Your task to perform on an android device: Open eBay Image 0: 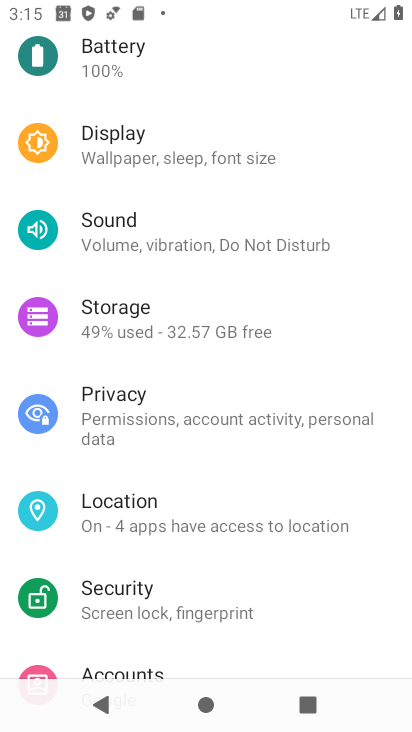
Step 0: press home button
Your task to perform on an android device: Open eBay Image 1: 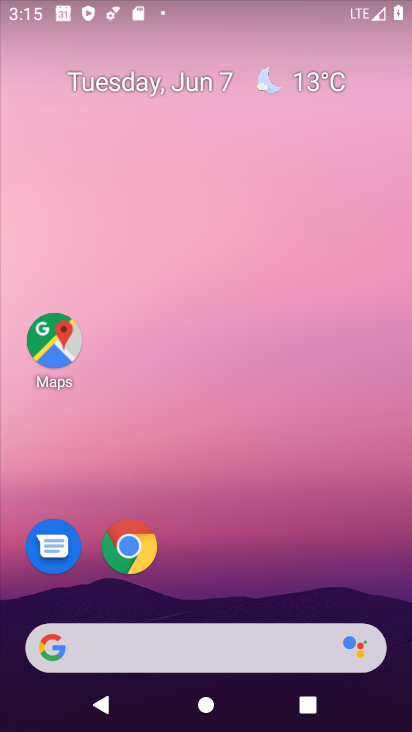
Step 1: drag from (237, 595) to (267, 58)
Your task to perform on an android device: Open eBay Image 2: 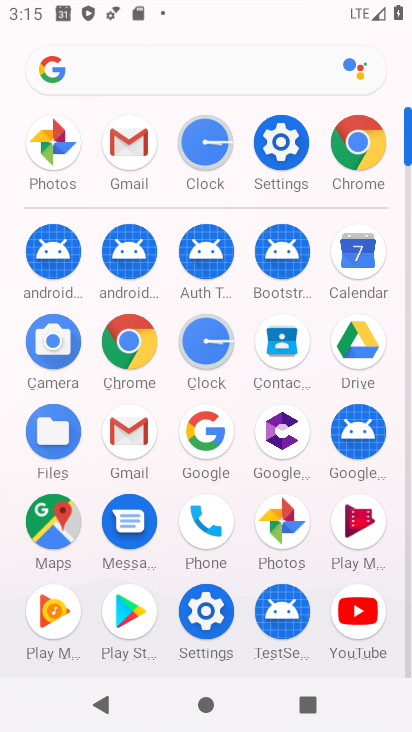
Step 2: click (368, 143)
Your task to perform on an android device: Open eBay Image 3: 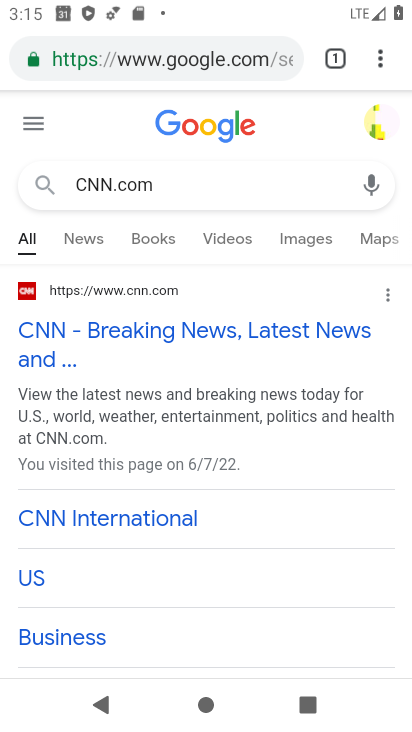
Step 3: click (130, 56)
Your task to perform on an android device: Open eBay Image 4: 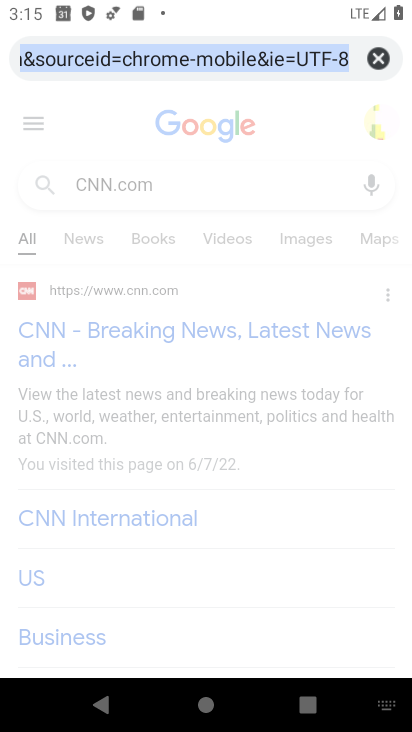
Step 4: type "eBAY"
Your task to perform on an android device: Open eBay Image 5: 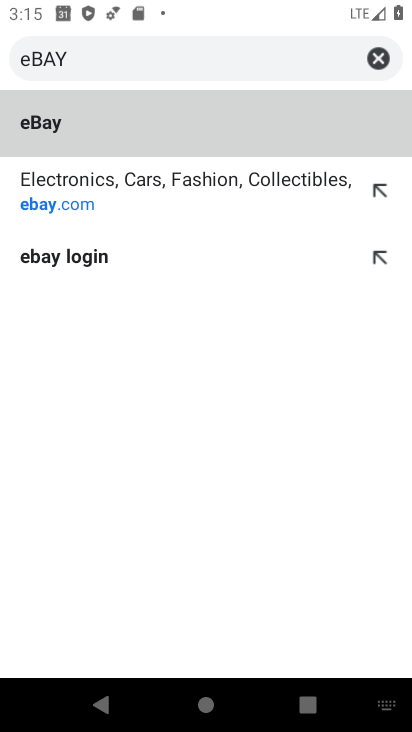
Step 5: click (96, 142)
Your task to perform on an android device: Open eBay Image 6: 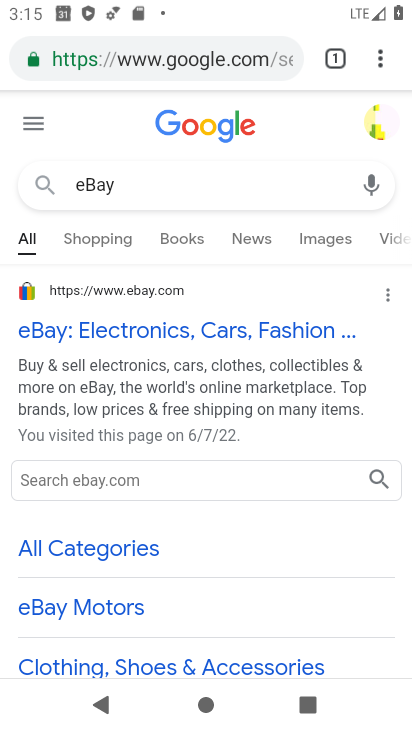
Step 6: task complete